Your task to perform on an android device: set default search engine in the chrome app Image 0: 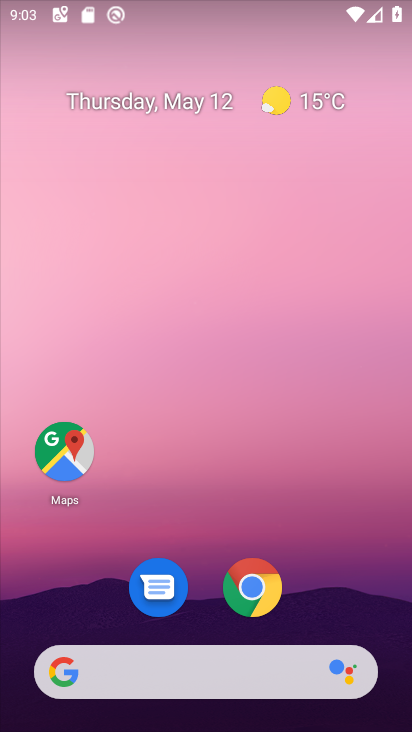
Step 0: drag from (380, 661) to (325, 107)
Your task to perform on an android device: set default search engine in the chrome app Image 1: 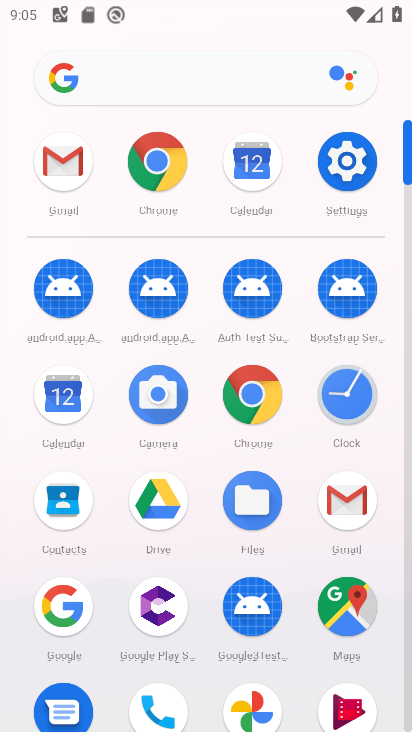
Step 1: click (268, 409)
Your task to perform on an android device: set default search engine in the chrome app Image 2: 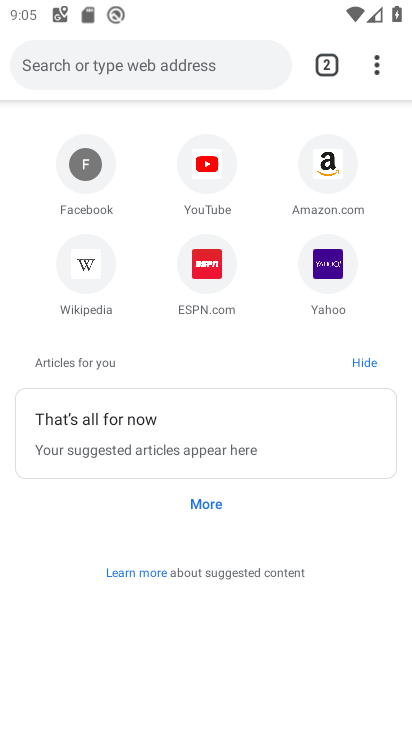
Step 2: click (375, 63)
Your task to perform on an android device: set default search engine in the chrome app Image 3: 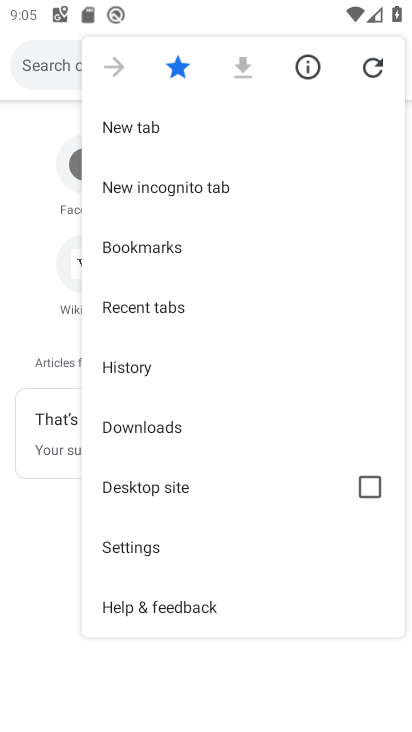
Step 3: click (169, 540)
Your task to perform on an android device: set default search engine in the chrome app Image 4: 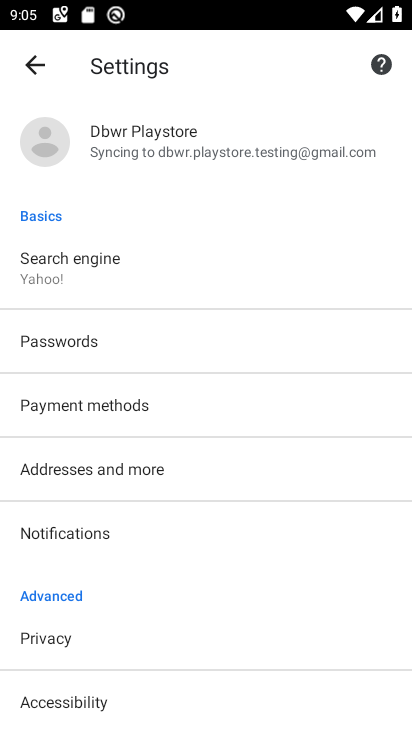
Step 4: click (122, 280)
Your task to perform on an android device: set default search engine in the chrome app Image 5: 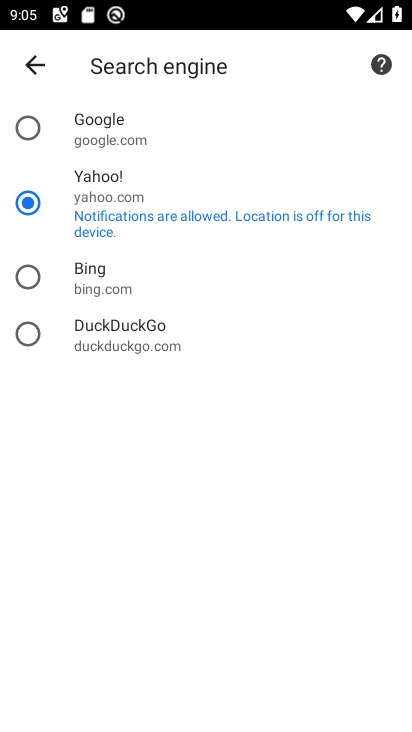
Step 5: click (105, 148)
Your task to perform on an android device: set default search engine in the chrome app Image 6: 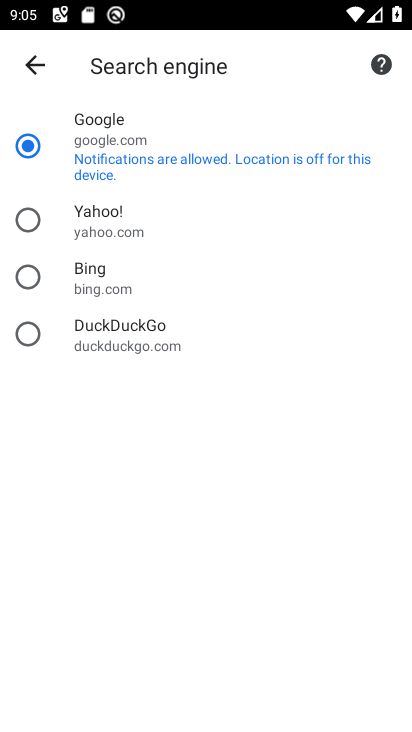
Step 6: task complete